Your task to perform on an android device: What's the weather going to be this weekend? Image 0: 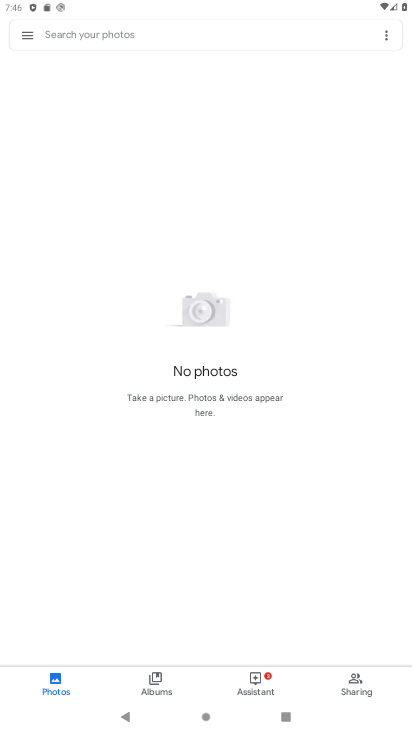
Step 0: press home button
Your task to perform on an android device: What's the weather going to be this weekend? Image 1: 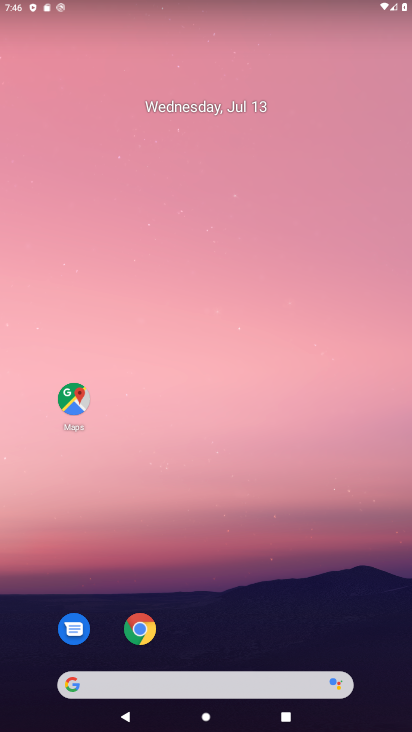
Step 1: click (158, 680)
Your task to perform on an android device: What's the weather going to be this weekend? Image 2: 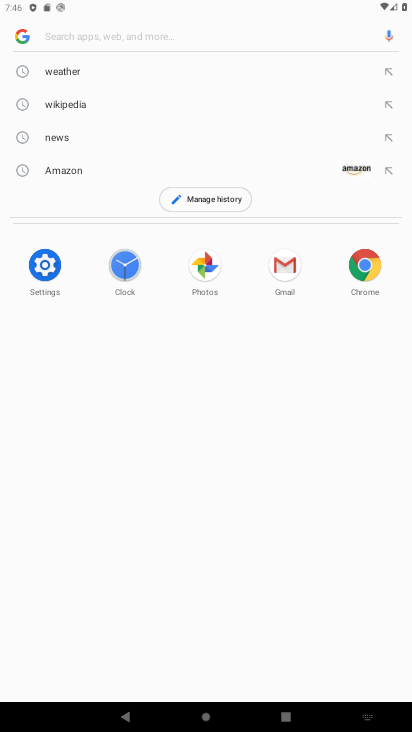
Step 2: type "What's the weather going to be this weekend?"
Your task to perform on an android device: What's the weather going to be this weekend? Image 3: 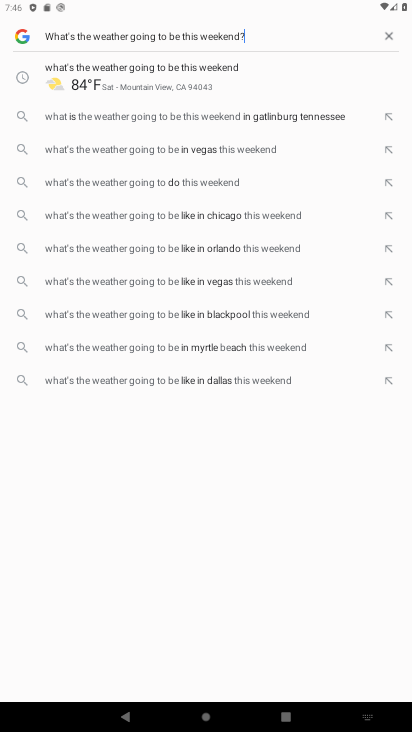
Step 3: type ""
Your task to perform on an android device: What's the weather going to be this weekend? Image 4: 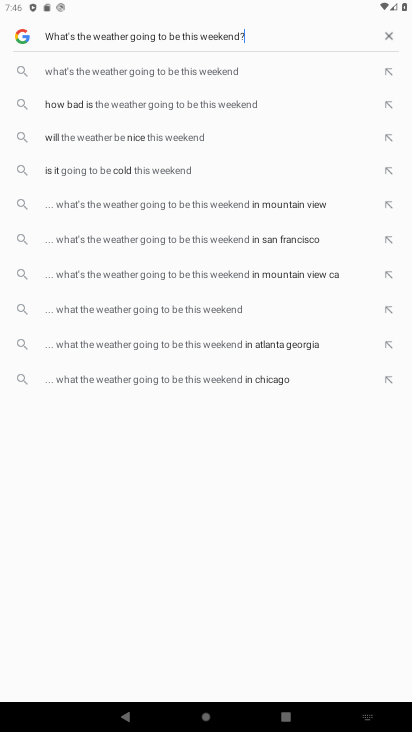
Step 4: type ""
Your task to perform on an android device: What's the weather going to be this weekend? Image 5: 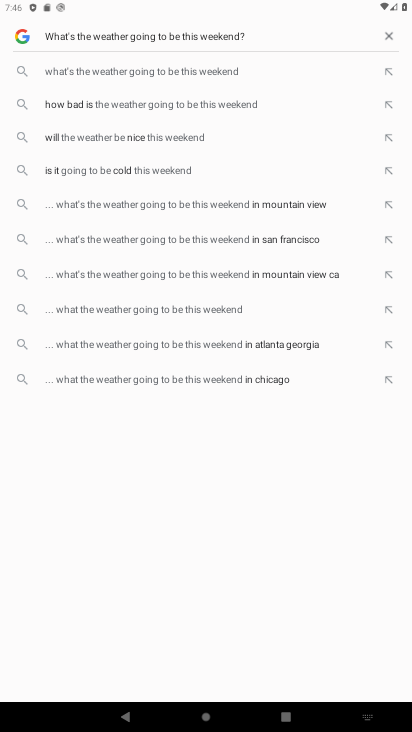
Step 5: type ""
Your task to perform on an android device: What's the weather going to be this weekend? Image 6: 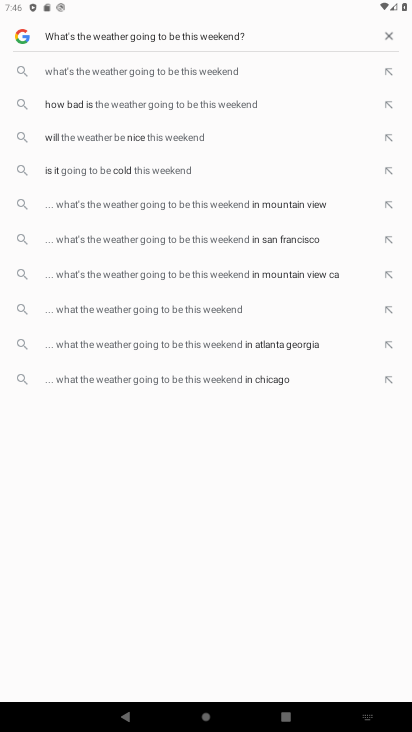
Step 6: click (191, 72)
Your task to perform on an android device: What's the weather going to be this weekend? Image 7: 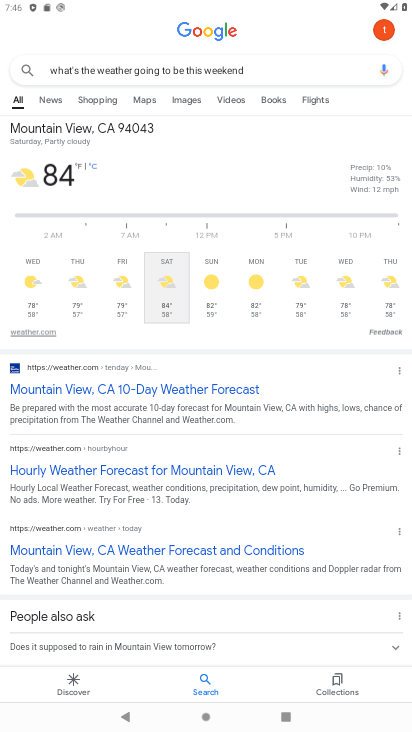
Step 7: task complete